Your task to perform on an android device: uninstall "YouTube Kids" Image 0: 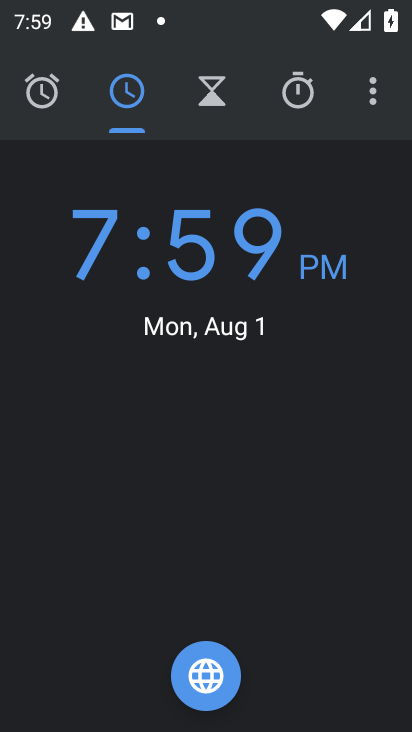
Step 0: press home button
Your task to perform on an android device: uninstall "YouTube Kids" Image 1: 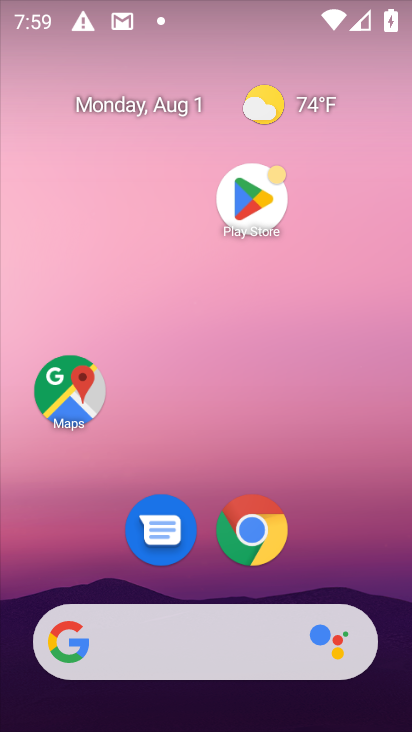
Step 1: click (269, 183)
Your task to perform on an android device: uninstall "YouTube Kids" Image 2: 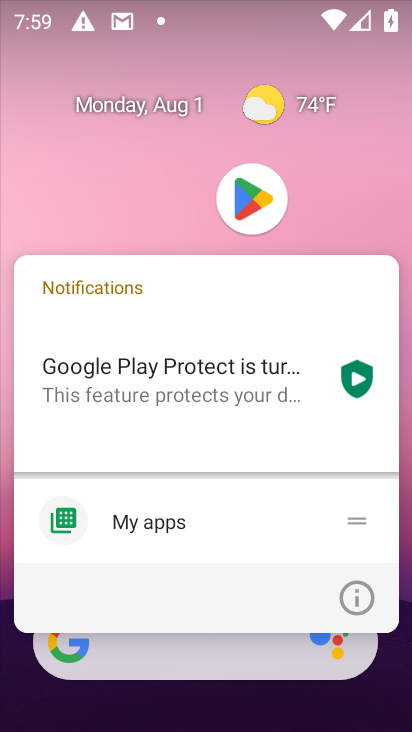
Step 2: click (269, 183)
Your task to perform on an android device: uninstall "YouTube Kids" Image 3: 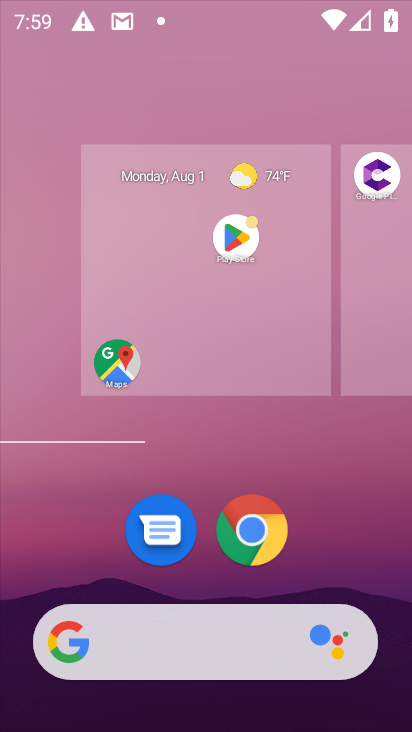
Step 3: click (243, 189)
Your task to perform on an android device: uninstall "YouTube Kids" Image 4: 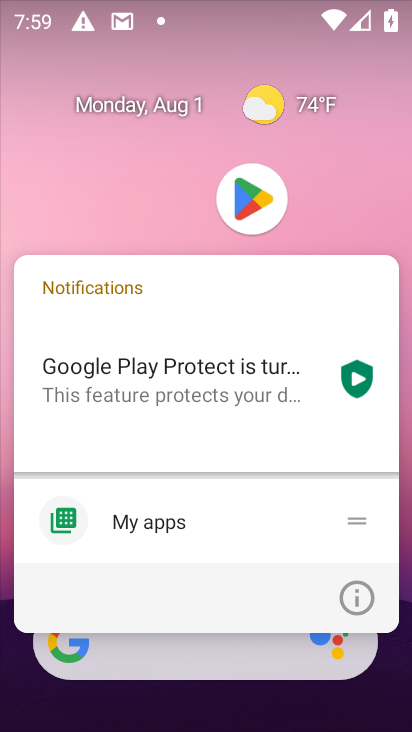
Step 4: click (243, 216)
Your task to perform on an android device: uninstall "YouTube Kids" Image 5: 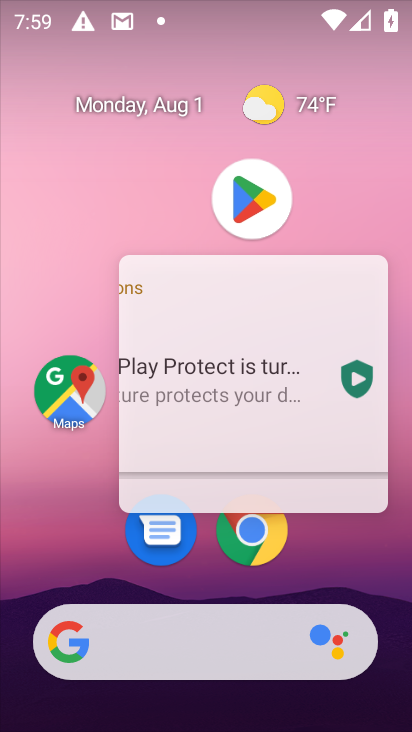
Step 5: click (243, 216)
Your task to perform on an android device: uninstall "YouTube Kids" Image 6: 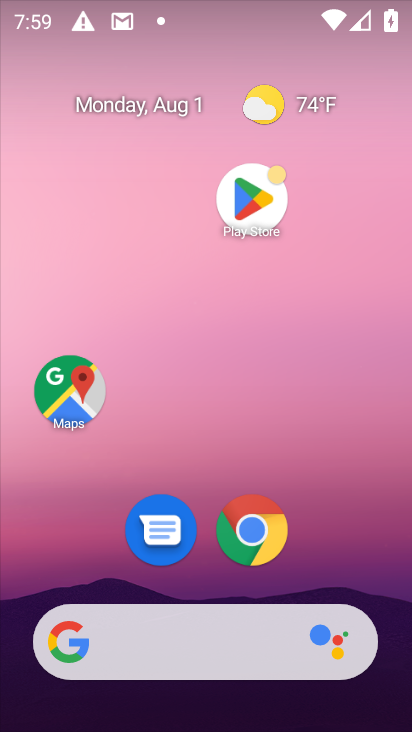
Step 6: click (243, 216)
Your task to perform on an android device: uninstall "YouTube Kids" Image 7: 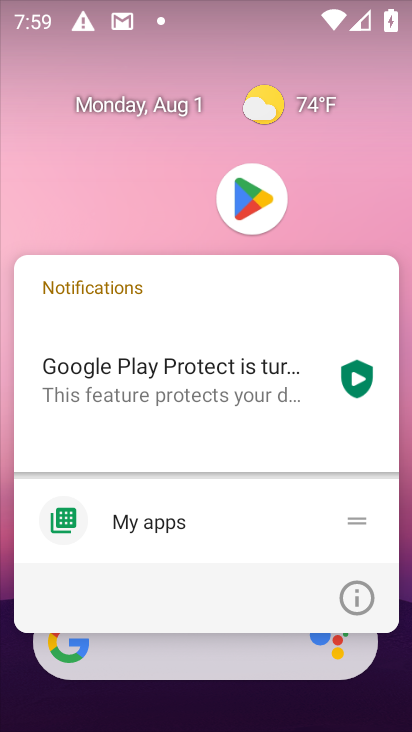
Step 7: click (243, 216)
Your task to perform on an android device: uninstall "YouTube Kids" Image 8: 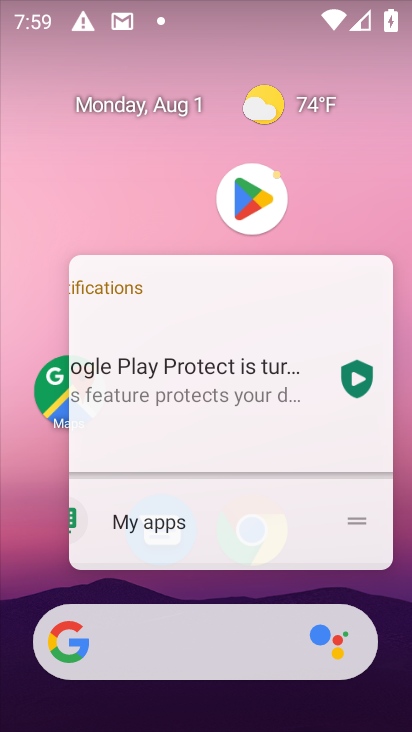
Step 8: click (243, 216)
Your task to perform on an android device: uninstall "YouTube Kids" Image 9: 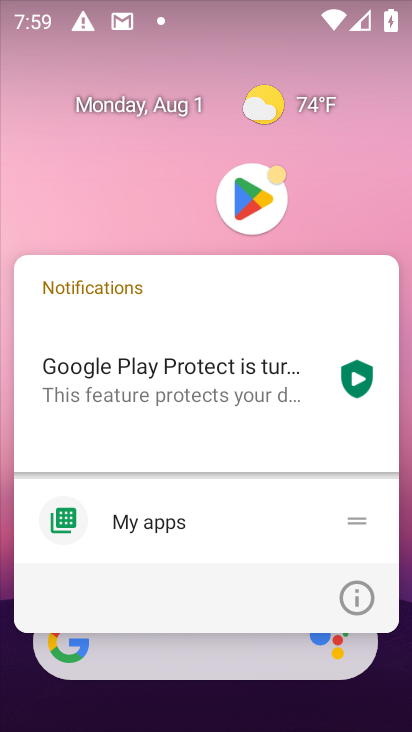
Step 9: click (243, 216)
Your task to perform on an android device: uninstall "YouTube Kids" Image 10: 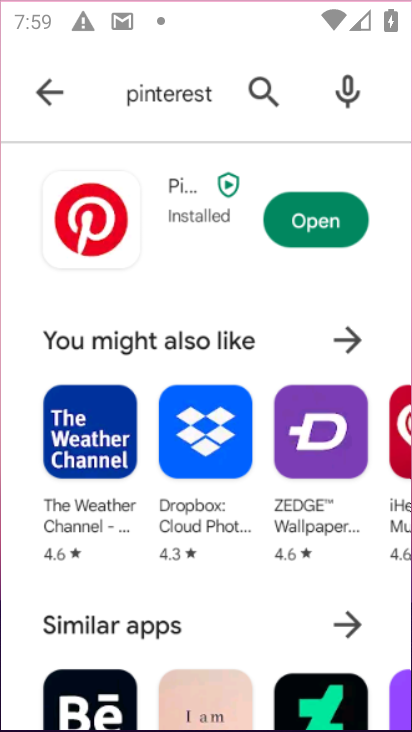
Step 10: click (245, 218)
Your task to perform on an android device: uninstall "YouTube Kids" Image 11: 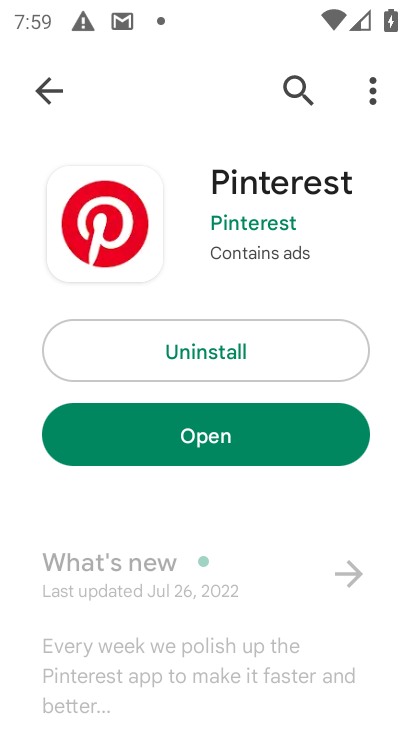
Step 11: click (263, 95)
Your task to perform on an android device: uninstall "YouTube Kids" Image 12: 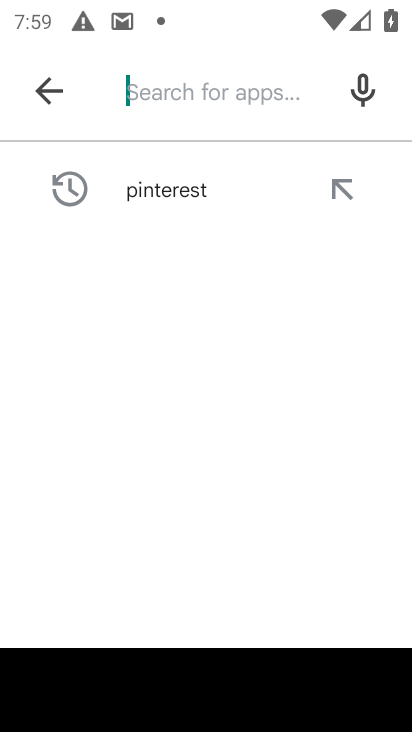
Step 12: type "youtube kids "
Your task to perform on an android device: uninstall "YouTube Kids" Image 13: 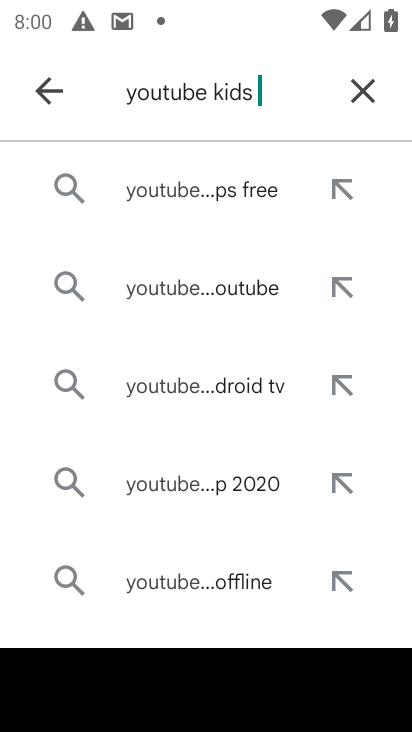
Step 13: type ""
Your task to perform on an android device: uninstall "YouTube Kids" Image 14: 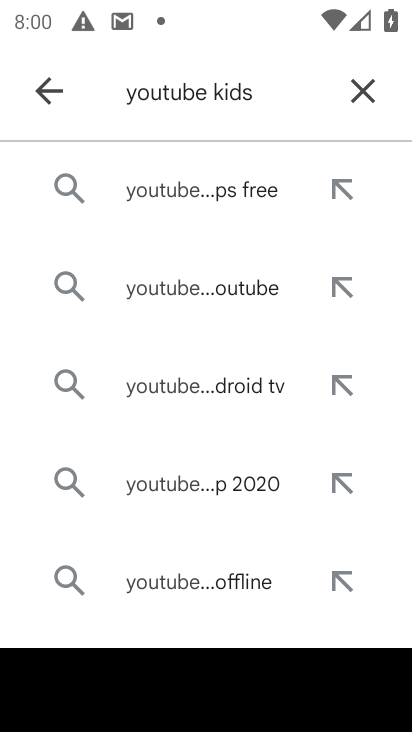
Step 14: press enter
Your task to perform on an android device: uninstall "YouTube Kids" Image 15: 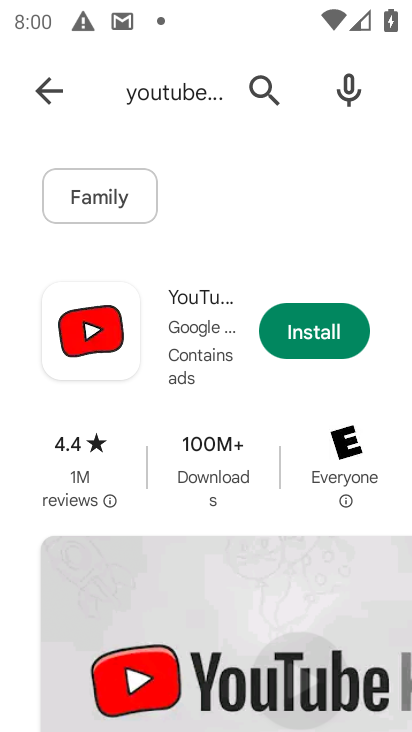
Step 15: task complete